Your task to perform on an android device: What's on my calendar tomorrow? Image 0: 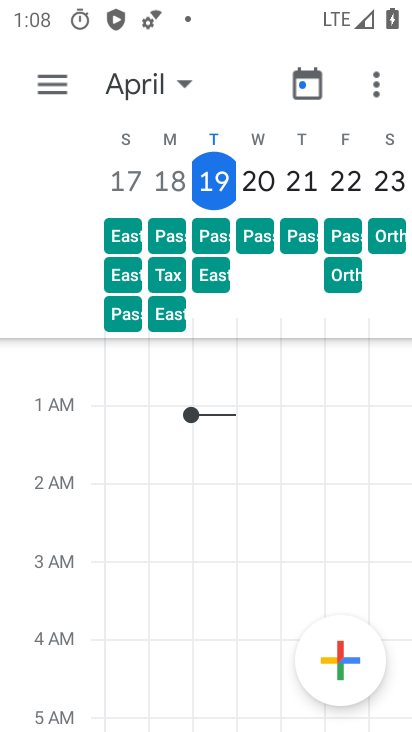
Step 0: press home button
Your task to perform on an android device: What's on my calendar tomorrow? Image 1: 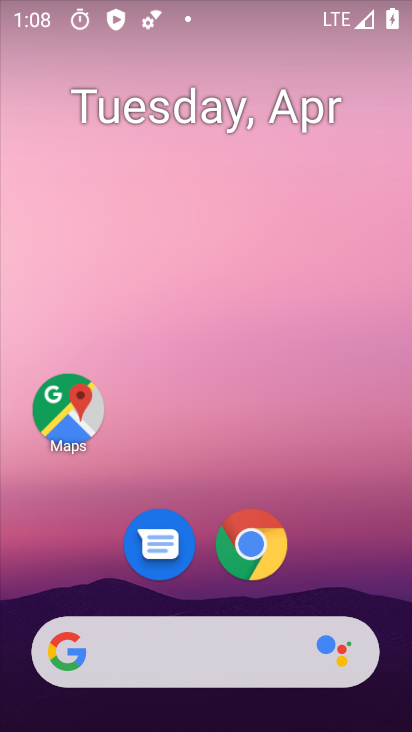
Step 1: drag from (364, 496) to (326, 23)
Your task to perform on an android device: What's on my calendar tomorrow? Image 2: 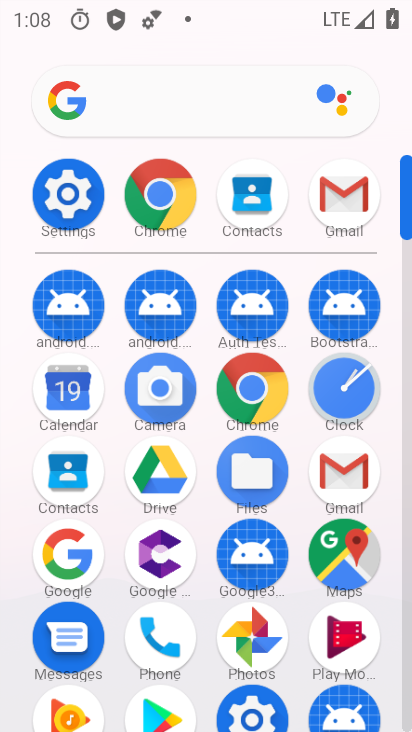
Step 2: click (72, 383)
Your task to perform on an android device: What's on my calendar tomorrow? Image 3: 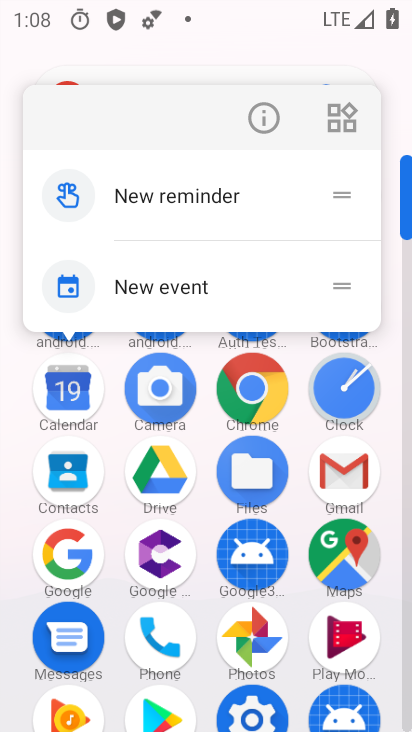
Step 3: click (63, 397)
Your task to perform on an android device: What's on my calendar tomorrow? Image 4: 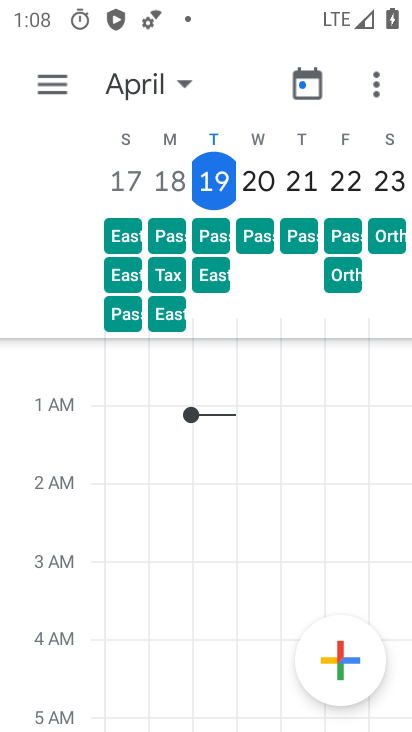
Step 4: click (63, 94)
Your task to perform on an android device: What's on my calendar tomorrow? Image 5: 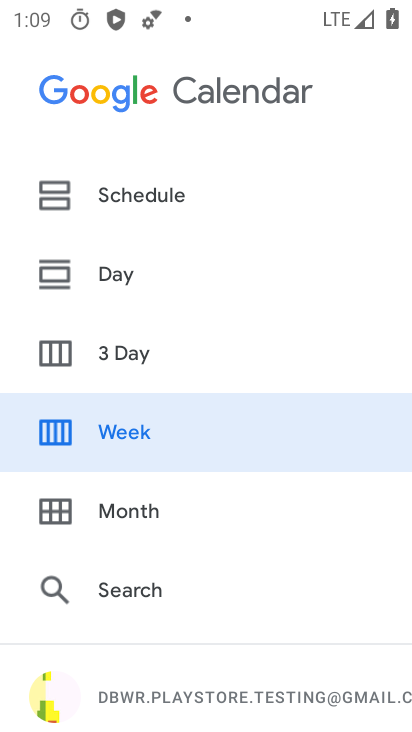
Step 5: click (101, 193)
Your task to perform on an android device: What's on my calendar tomorrow? Image 6: 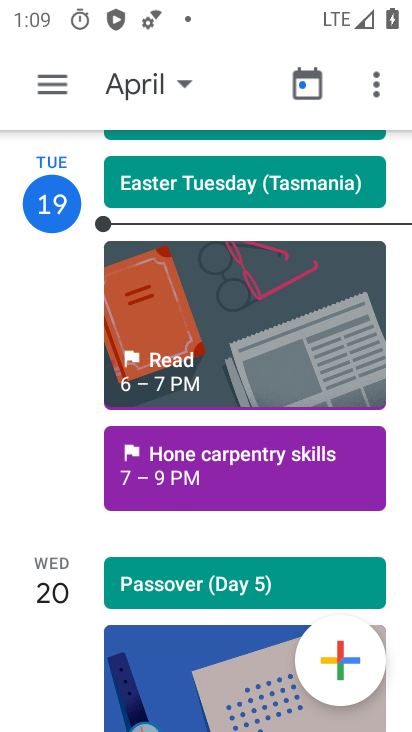
Step 6: click (190, 85)
Your task to perform on an android device: What's on my calendar tomorrow? Image 7: 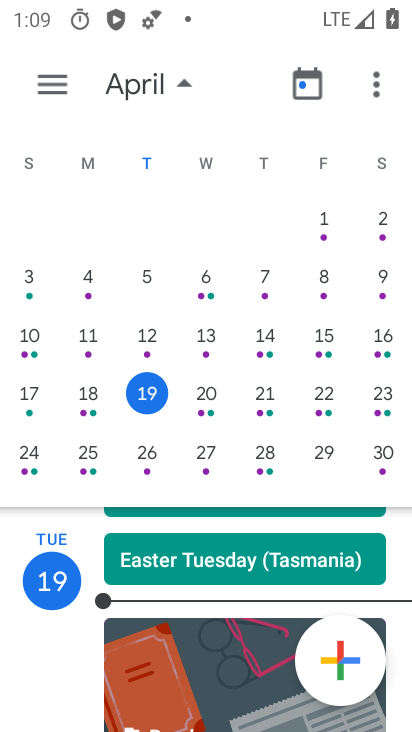
Step 7: click (204, 398)
Your task to perform on an android device: What's on my calendar tomorrow? Image 8: 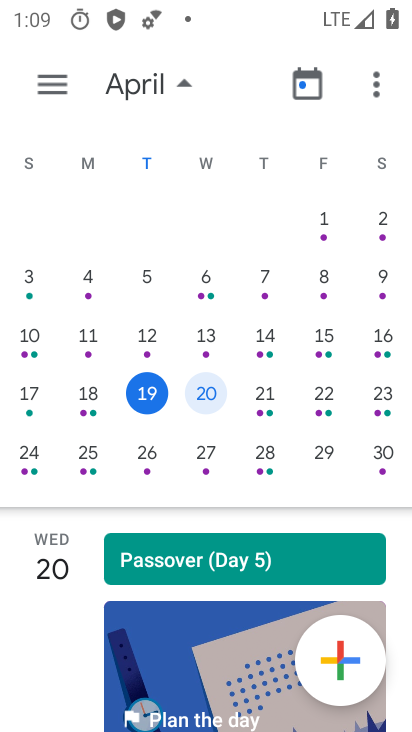
Step 8: drag from (249, 556) to (242, 368)
Your task to perform on an android device: What's on my calendar tomorrow? Image 9: 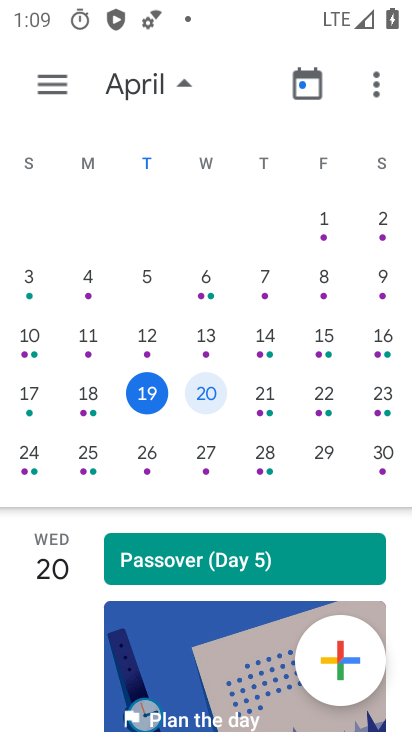
Step 9: drag from (206, 606) to (211, 272)
Your task to perform on an android device: What's on my calendar tomorrow? Image 10: 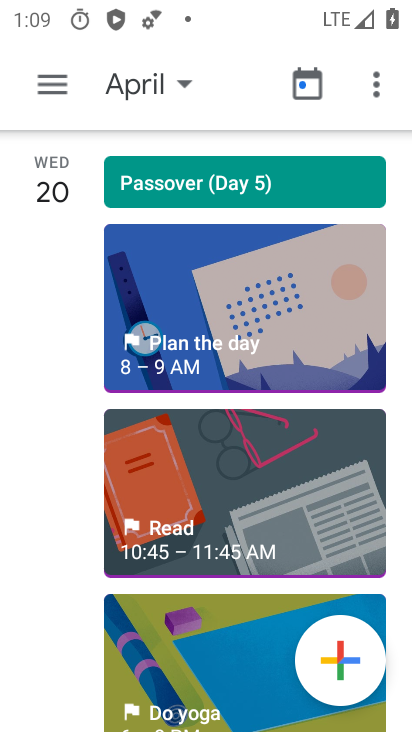
Step 10: drag from (211, 463) to (219, 268)
Your task to perform on an android device: What's on my calendar tomorrow? Image 11: 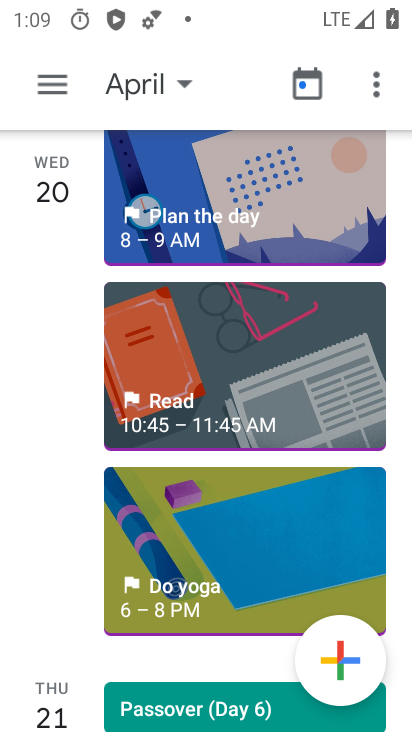
Step 11: drag from (209, 431) to (186, 640)
Your task to perform on an android device: What's on my calendar tomorrow? Image 12: 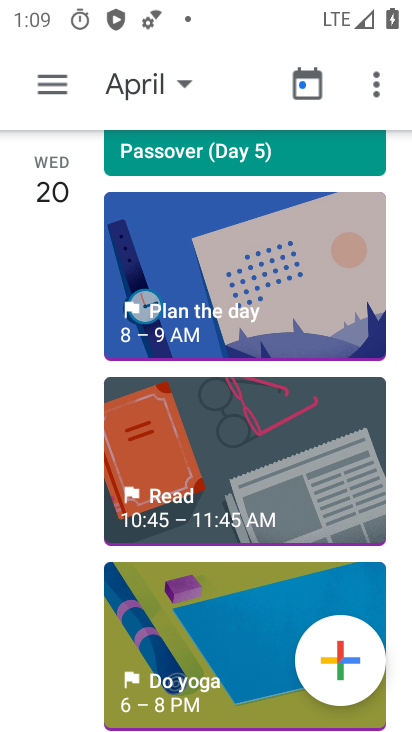
Step 12: click (58, 92)
Your task to perform on an android device: What's on my calendar tomorrow? Image 13: 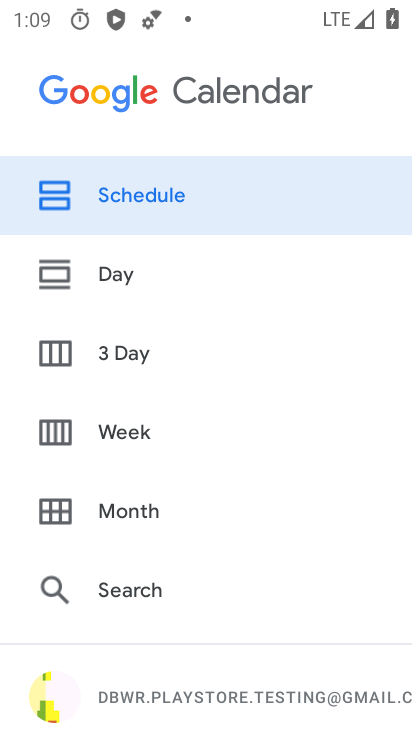
Step 13: drag from (152, 606) to (156, 244)
Your task to perform on an android device: What's on my calendar tomorrow? Image 14: 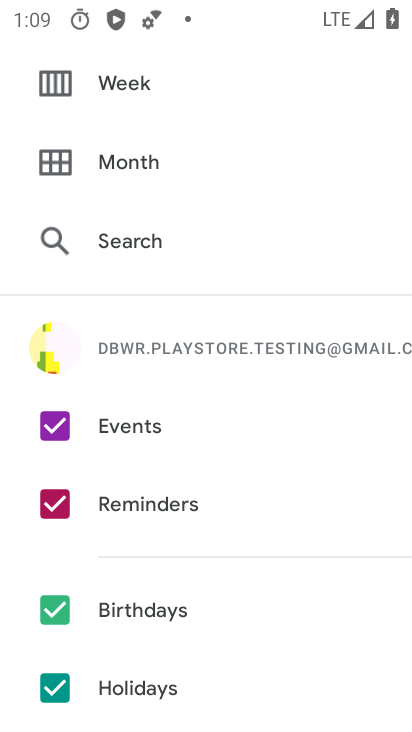
Step 14: press back button
Your task to perform on an android device: What's on my calendar tomorrow? Image 15: 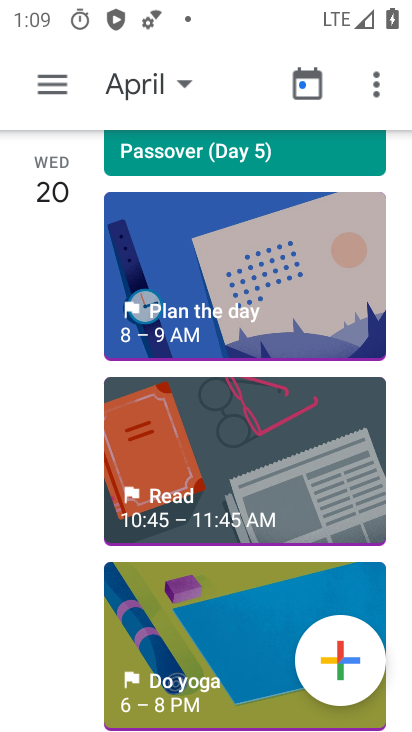
Step 15: click (184, 84)
Your task to perform on an android device: What's on my calendar tomorrow? Image 16: 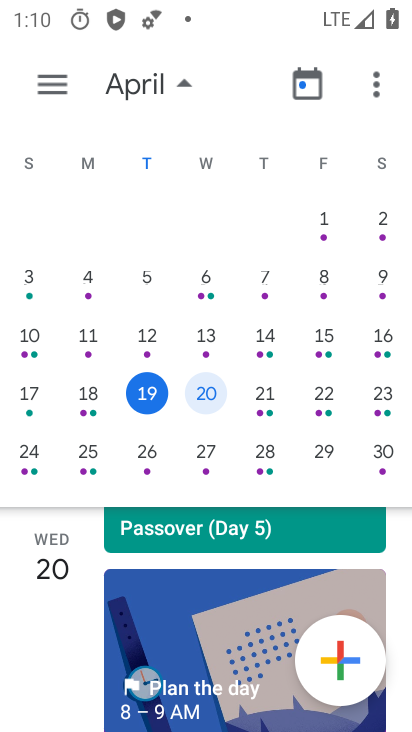
Step 16: click (199, 397)
Your task to perform on an android device: What's on my calendar tomorrow? Image 17: 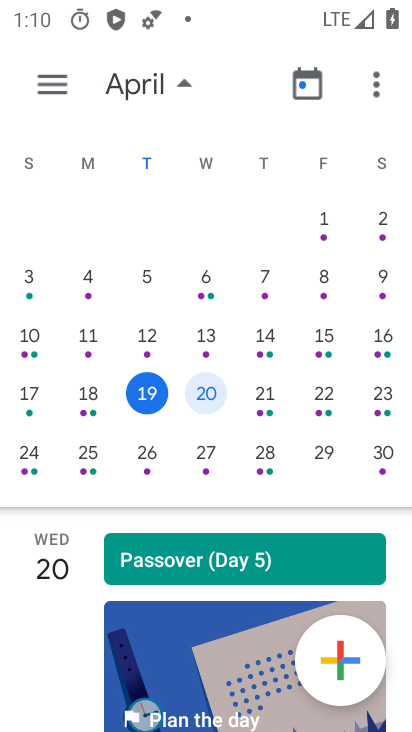
Step 17: drag from (170, 572) to (147, 200)
Your task to perform on an android device: What's on my calendar tomorrow? Image 18: 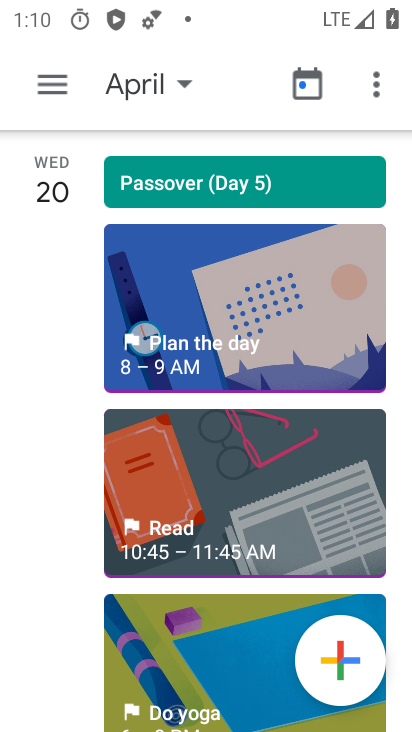
Step 18: drag from (228, 544) to (232, 412)
Your task to perform on an android device: What's on my calendar tomorrow? Image 19: 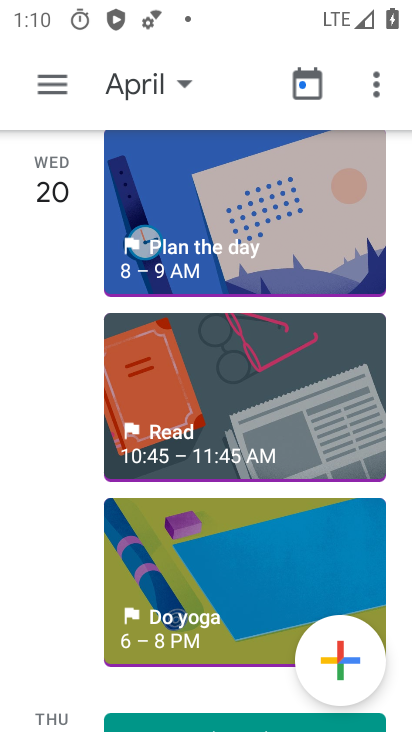
Step 19: click (198, 608)
Your task to perform on an android device: What's on my calendar tomorrow? Image 20: 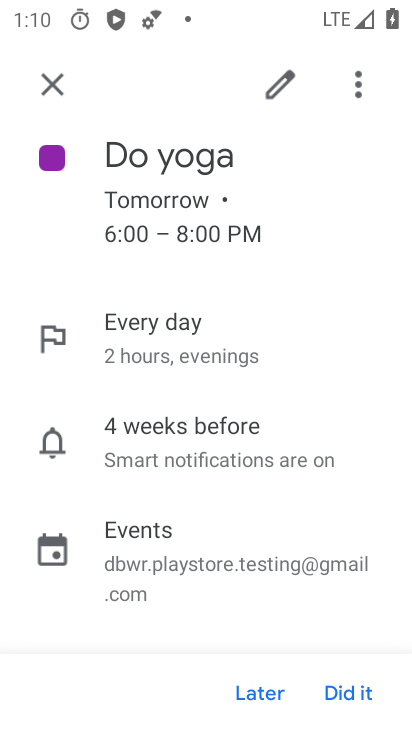
Step 20: task complete